Your task to perform on an android device: turn on bluetooth scan Image 0: 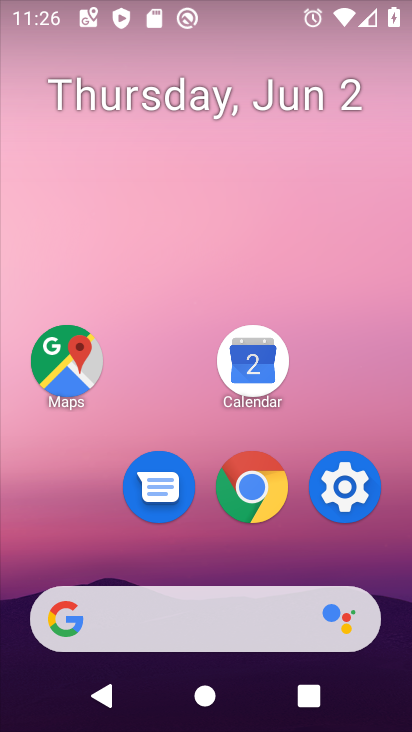
Step 0: drag from (302, 641) to (261, 58)
Your task to perform on an android device: turn on bluetooth scan Image 1: 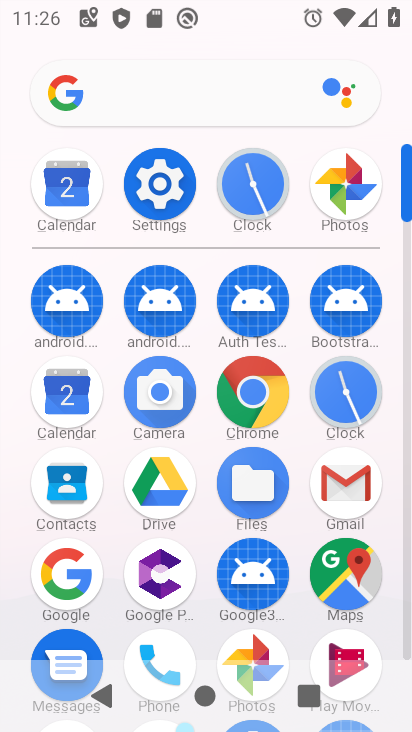
Step 1: click (169, 181)
Your task to perform on an android device: turn on bluetooth scan Image 2: 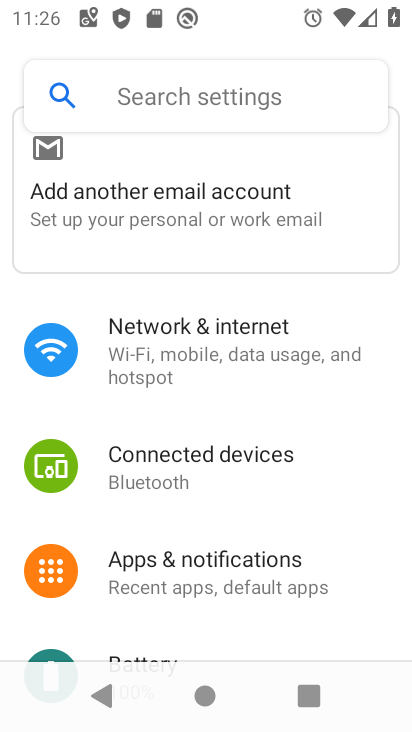
Step 2: click (173, 116)
Your task to perform on an android device: turn on bluetooth scan Image 3: 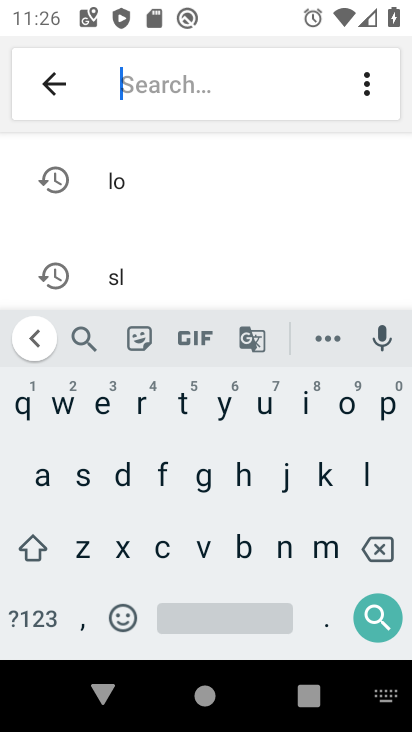
Step 3: click (99, 189)
Your task to perform on an android device: turn on bluetooth scan Image 4: 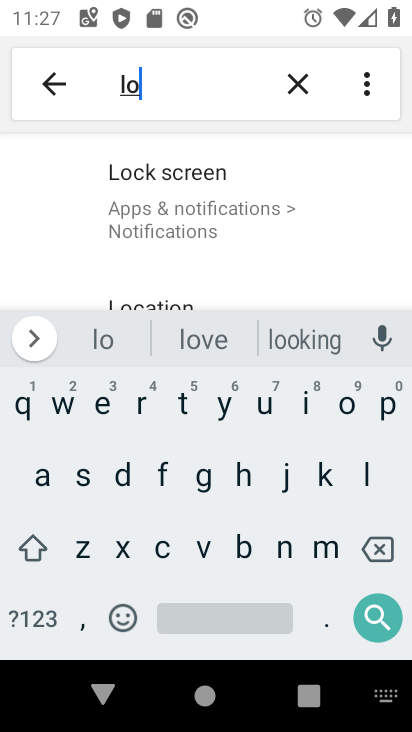
Step 4: click (134, 294)
Your task to perform on an android device: turn on bluetooth scan Image 5: 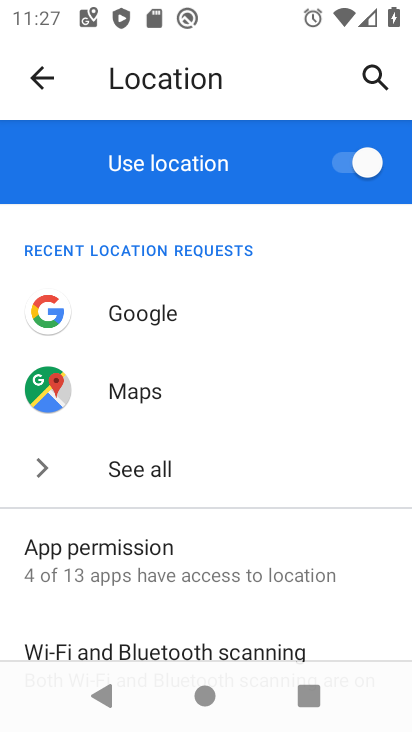
Step 5: click (118, 650)
Your task to perform on an android device: turn on bluetooth scan Image 6: 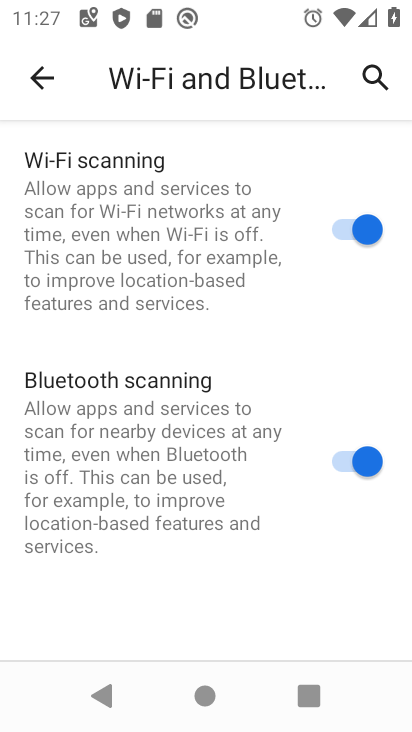
Step 6: task complete